Your task to perform on an android device: toggle airplane mode Image 0: 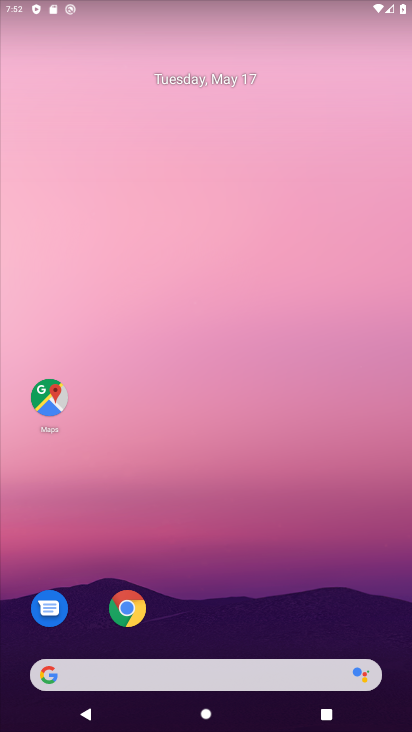
Step 0: drag from (331, 569) to (311, 123)
Your task to perform on an android device: toggle airplane mode Image 1: 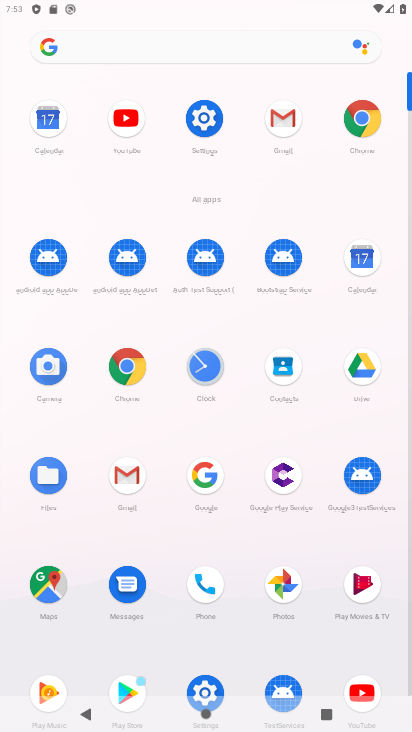
Step 1: click (219, 127)
Your task to perform on an android device: toggle airplane mode Image 2: 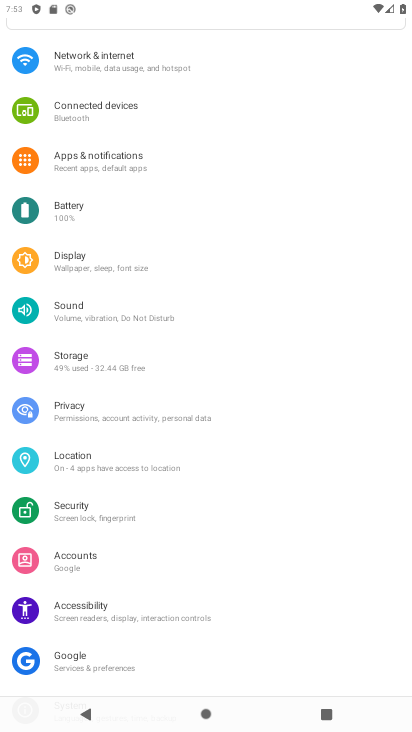
Step 2: drag from (219, 127) to (193, 584)
Your task to perform on an android device: toggle airplane mode Image 3: 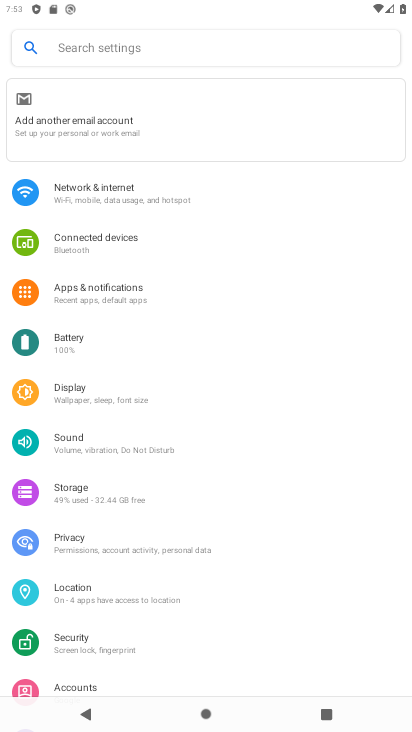
Step 3: click (124, 182)
Your task to perform on an android device: toggle airplane mode Image 4: 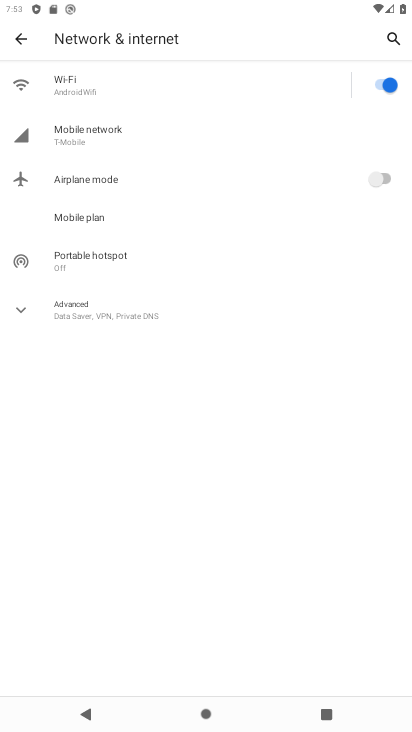
Step 4: click (383, 176)
Your task to perform on an android device: toggle airplane mode Image 5: 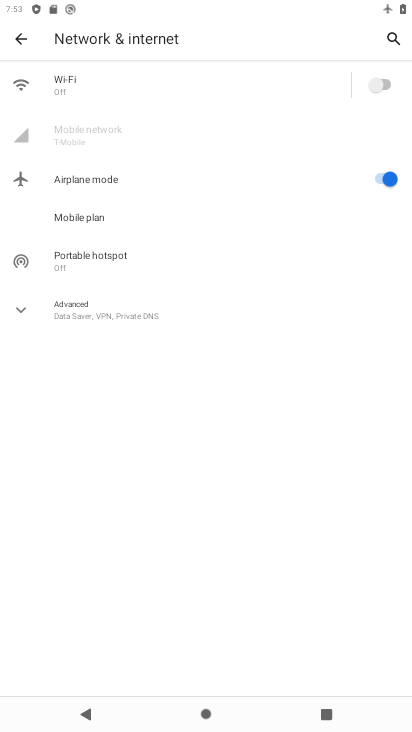
Step 5: task complete